Your task to perform on an android device: clear all cookies in the chrome app Image 0: 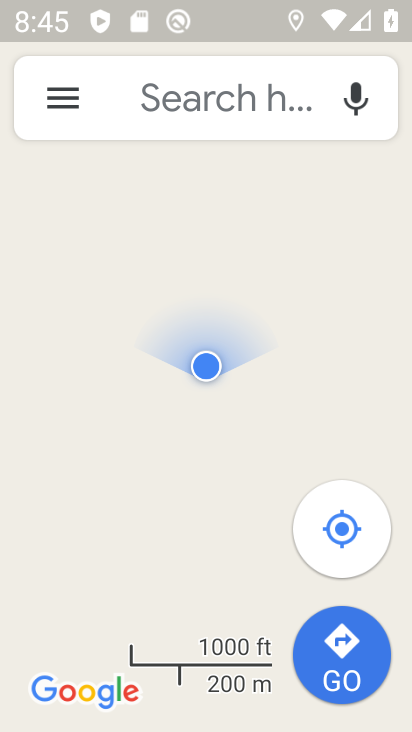
Step 0: press home button
Your task to perform on an android device: clear all cookies in the chrome app Image 1: 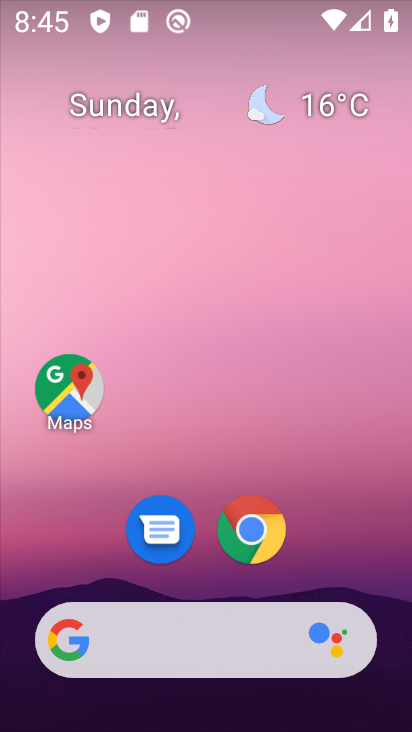
Step 1: click (254, 533)
Your task to perform on an android device: clear all cookies in the chrome app Image 2: 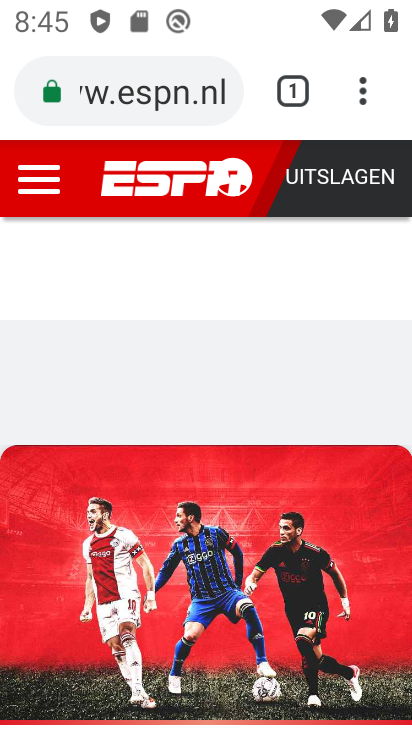
Step 2: drag from (379, 95) to (281, 560)
Your task to perform on an android device: clear all cookies in the chrome app Image 3: 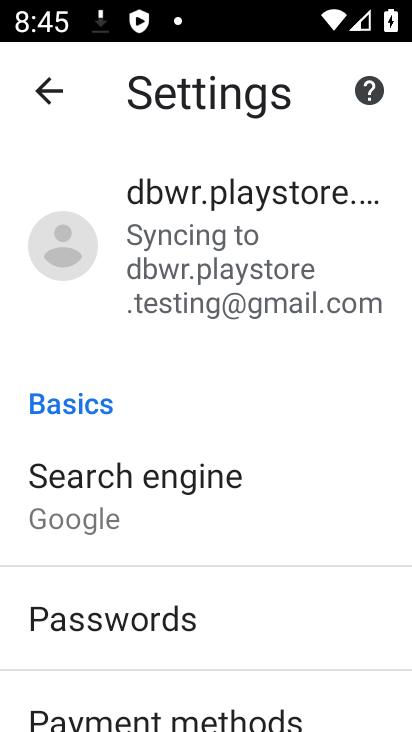
Step 3: drag from (268, 600) to (411, 157)
Your task to perform on an android device: clear all cookies in the chrome app Image 4: 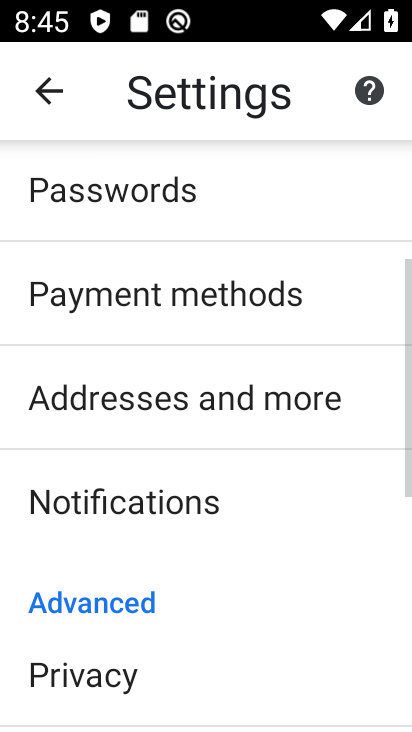
Step 4: drag from (237, 613) to (322, 368)
Your task to perform on an android device: clear all cookies in the chrome app Image 5: 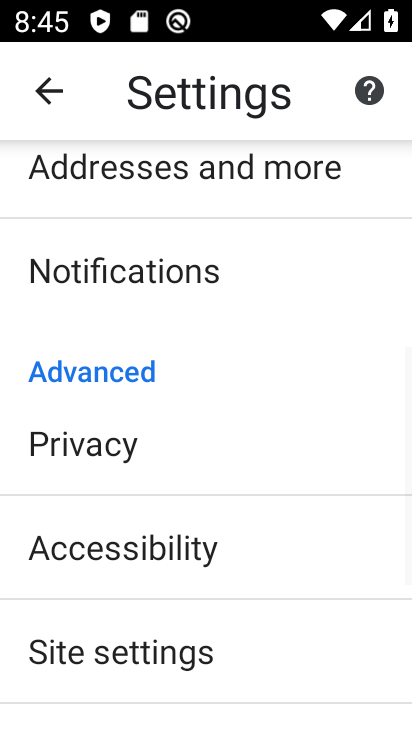
Step 5: click (165, 468)
Your task to perform on an android device: clear all cookies in the chrome app Image 6: 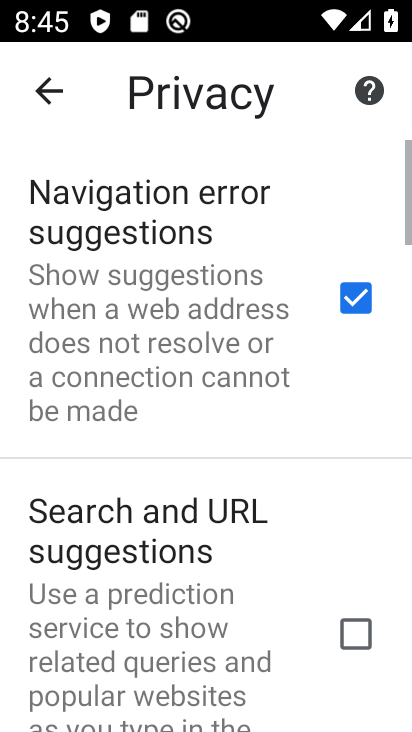
Step 6: drag from (187, 652) to (351, 129)
Your task to perform on an android device: clear all cookies in the chrome app Image 7: 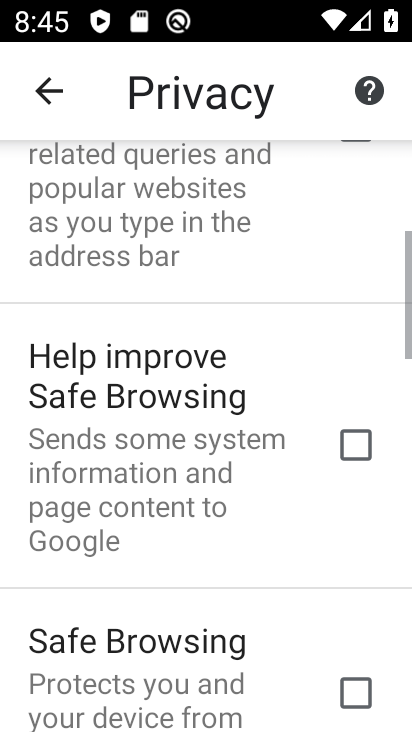
Step 7: drag from (118, 586) to (303, 47)
Your task to perform on an android device: clear all cookies in the chrome app Image 8: 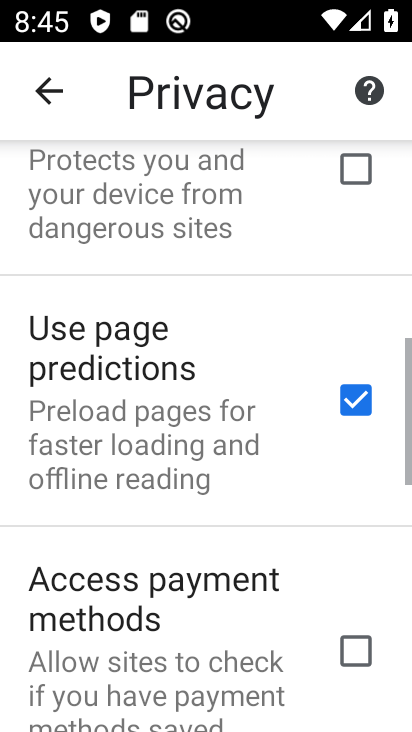
Step 8: drag from (146, 522) to (252, 99)
Your task to perform on an android device: clear all cookies in the chrome app Image 9: 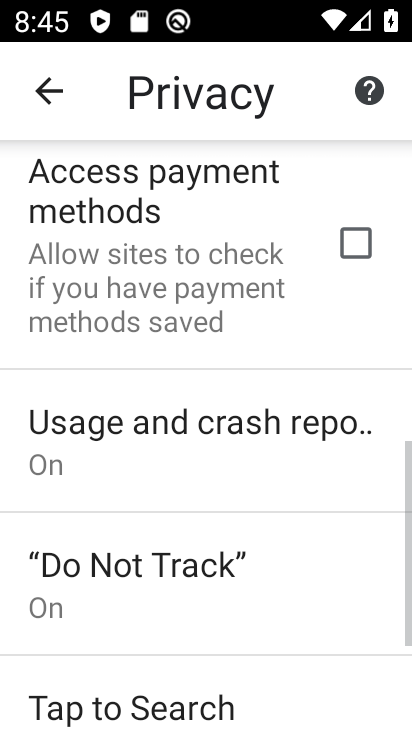
Step 9: drag from (191, 485) to (320, 143)
Your task to perform on an android device: clear all cookies in the chrome app Image 10: 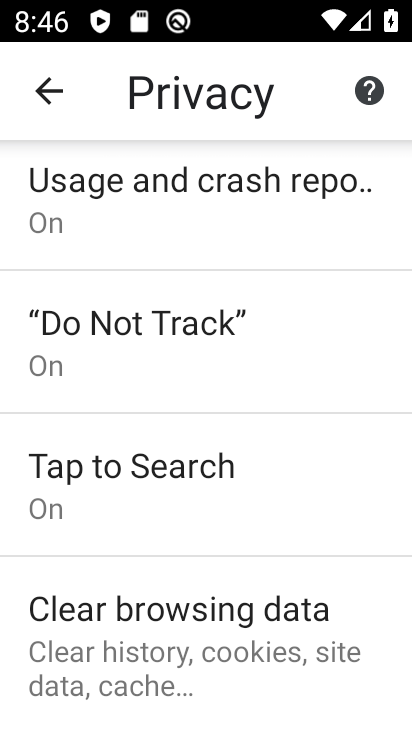
Step 10: click (188, 640)
Your task to perform on an android device: clear all cookies in the chrome app Image 11: 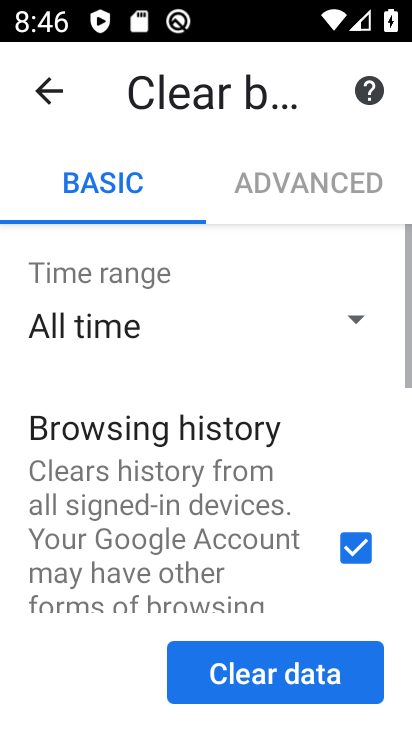
Step 11: drag from (148, 529) to (327, 185)
Your task to perform on an android device: clear all cookies in the chrome app Image 12: 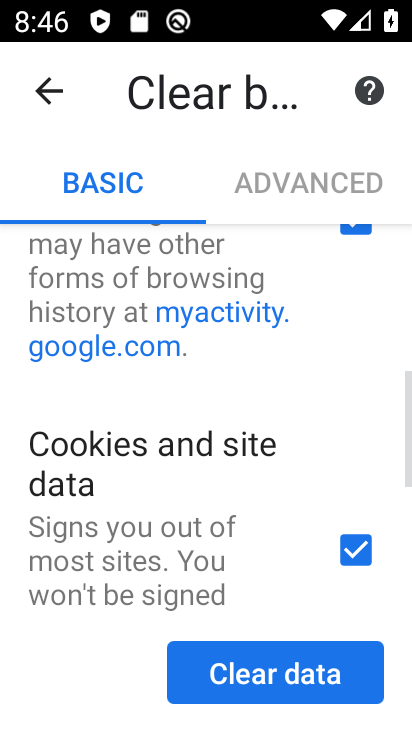
Step 12: drag from (220, 539) to (294, 272)
Your task to perform on an android device: clear all cookies in the chrome app Image 13: 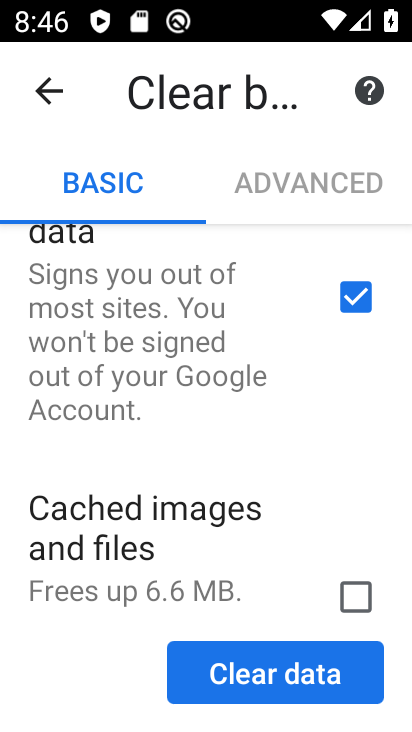
Step 13: drag from (278, 285) to (289, 606)
Your task to perform on an android device: clear all cookies in the chrome app Image 14: 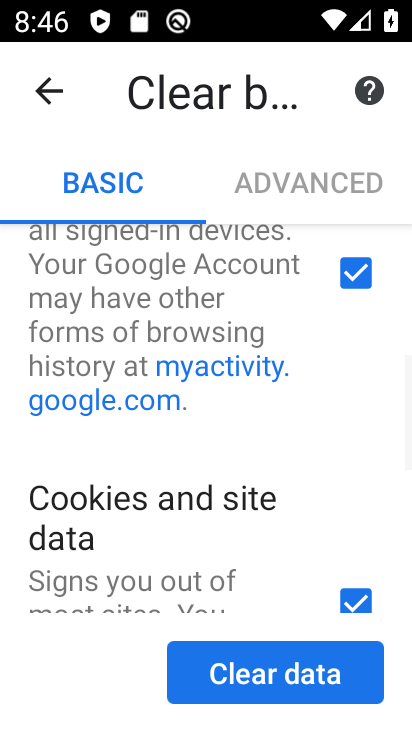
Step 14: click (368, 296)
Your task to perform on an android device: clear all cookies in the chrome app Image 15: 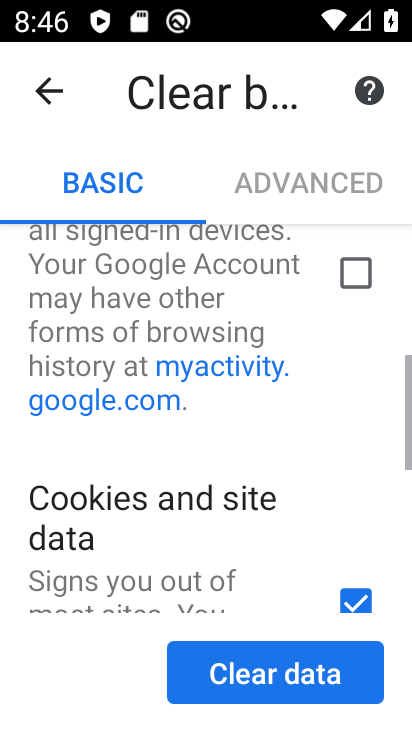
Step 15: drag from (145, 555) to (365, 183)
Your task to perform on an android device: clear all cookies in the chrome app Image 16: 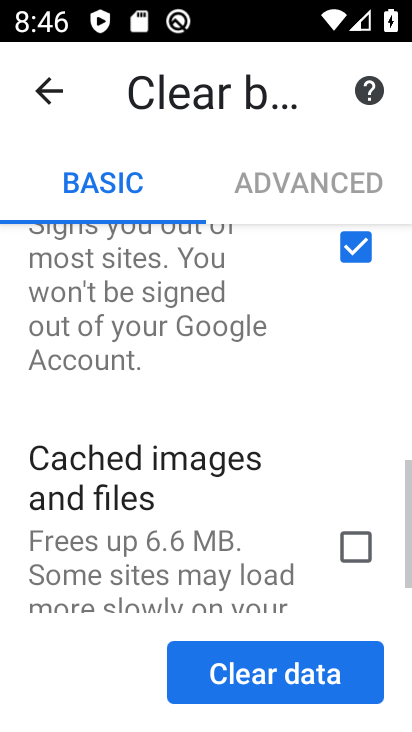
Step 16: drag from (269, 597) to (371, 278)
Your task to perform on an android device: clear all cookies in the chrome app Image 17: 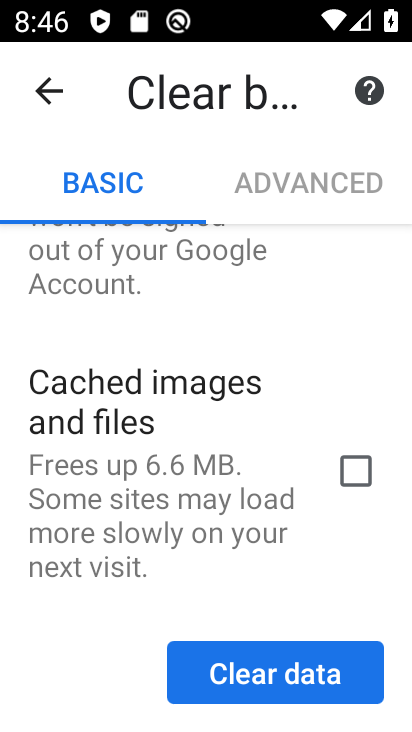
Step 17: click (261, 661)
Your task to perform on an android device: clear all cookies in the chrome app Image 18: 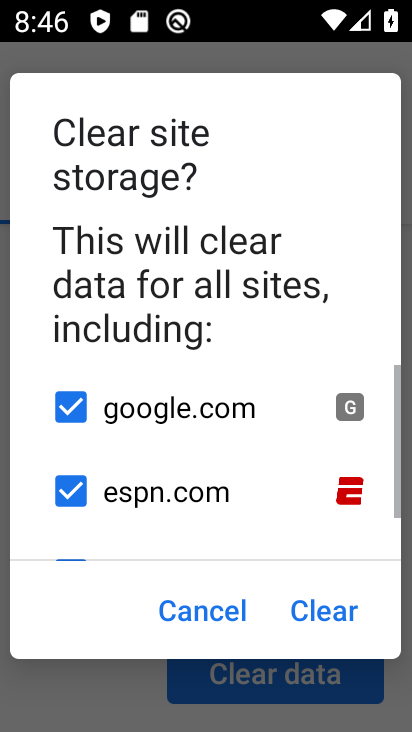
Step 18: click (331, 618)
Your task to perform on an android device: clear all cookies in the chrome app Image 19: 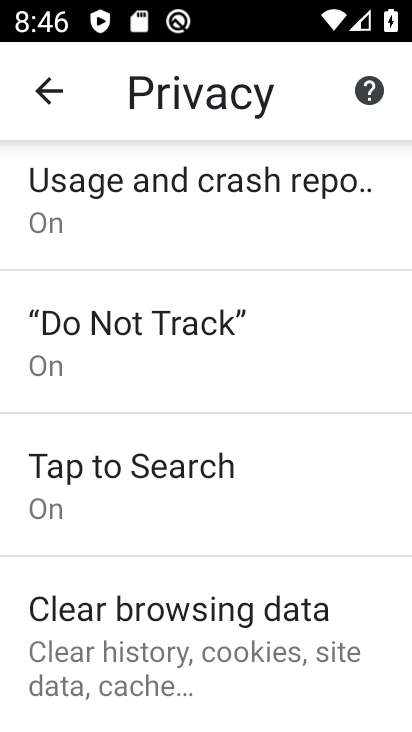
Step 19: task complete